Your task to perform on an android device: Open Youtube and go to "Your channel" Image 0: 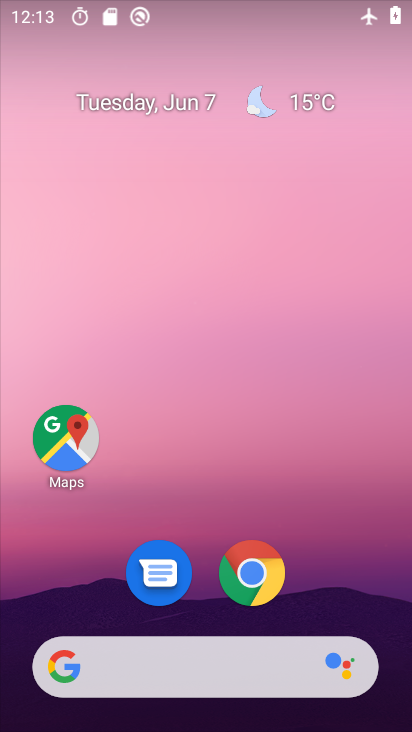
Step 0: drag from (199, 615) to (166, 203)
Your task to perform on an android device: Open Youtube and go to "Your channel" Image 1: 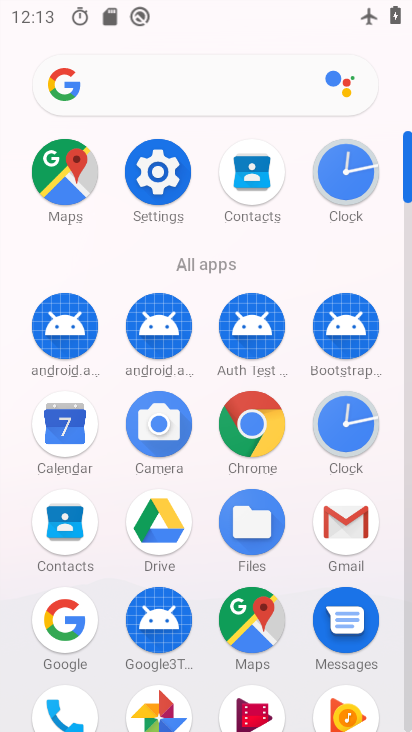
Step 1: drag from (186, 325) to (170, 176)
Your task to perform on an android device: Open Youtube and go to "Your channel" Image 2: 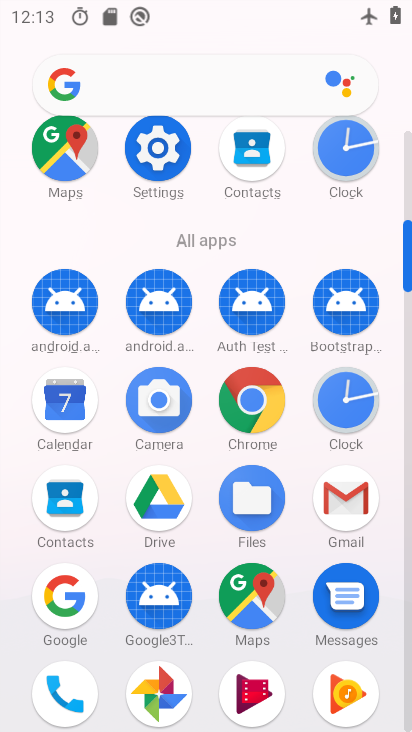
Step 2: drag from (224, 566) to (176, 232)
Your task to perform on an android device: Open Youtube and go to "Your channel" Image 3: 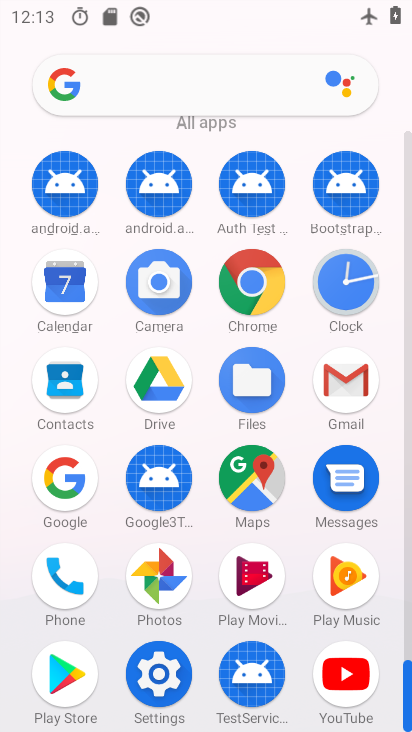
Step 3: click (334, 654)
Your task to perform on an android device: Open Youtube and go to "Your channel" Image 4: 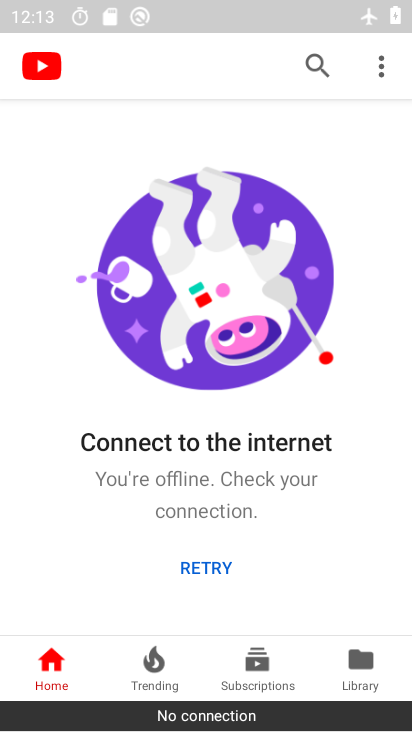
Step 4: click (381, 70)
Your task to perform on an android device: Open Youtube and go to "Your channel" Image 5: 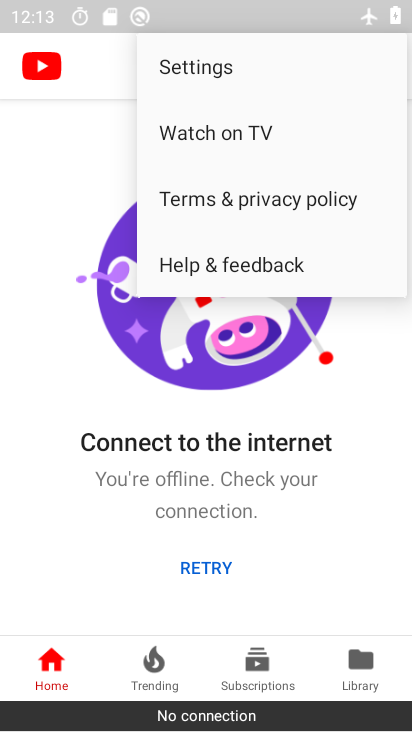
Step 5: click (313, 397)
Your task to perform on an android device: Open Youtube and go to "Your channel" Image 6: 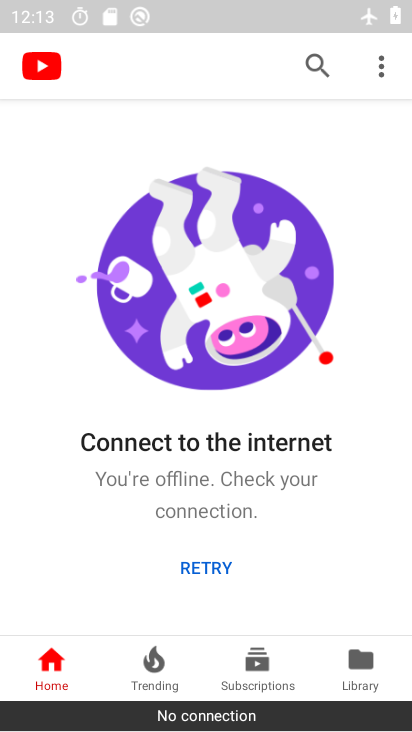
Step 6: click (193, 567)
Your task to perform on an android device: Open Youtube and go to "Your channel" Image 7: 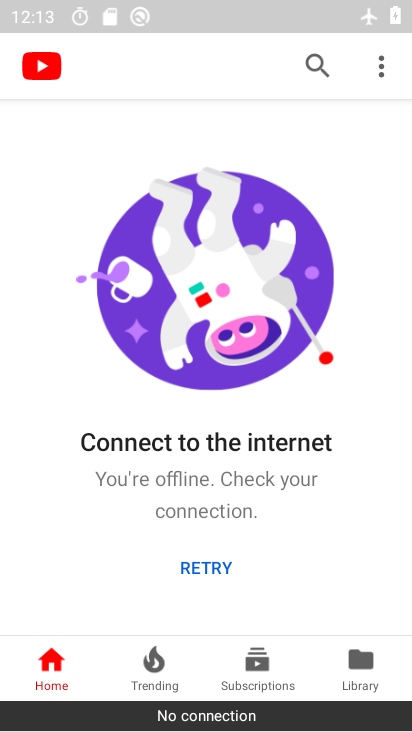
Step 7: click (375, 67)
Your task to perform on an android device: Open Youtube and go to "Your channel" Image 8: 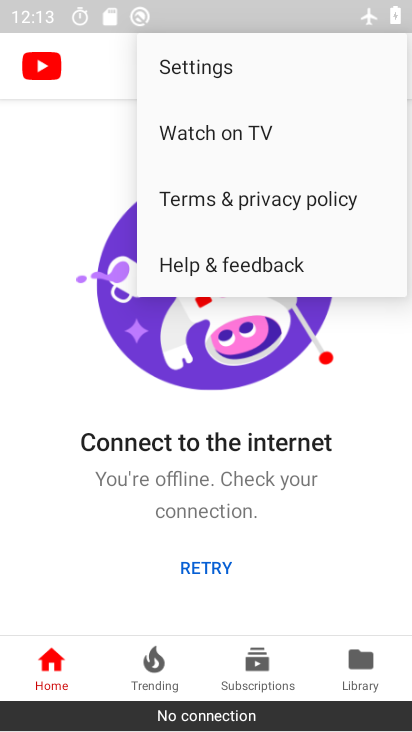
Step 8: click (263, 437)
Your task to perform on an android device: Open Youtube and go to "Your channel" Image 9: 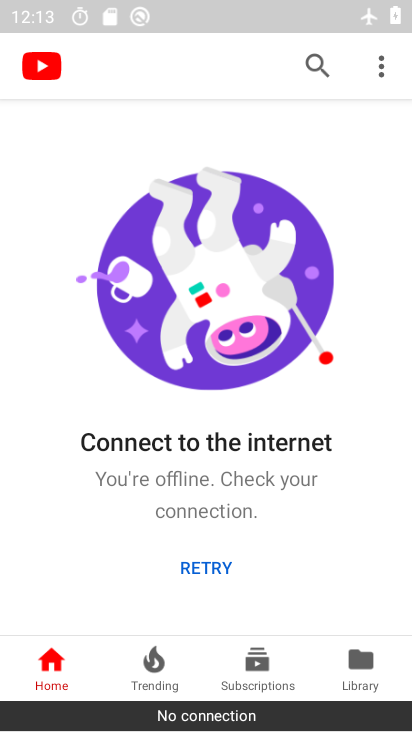
Step 9: task complete